Your task to perform on an android device: Show the shopping cart on costco.com. Search for razer naga on costco.com, select the first entry, add it to the cart, then select checkout. Image 0: 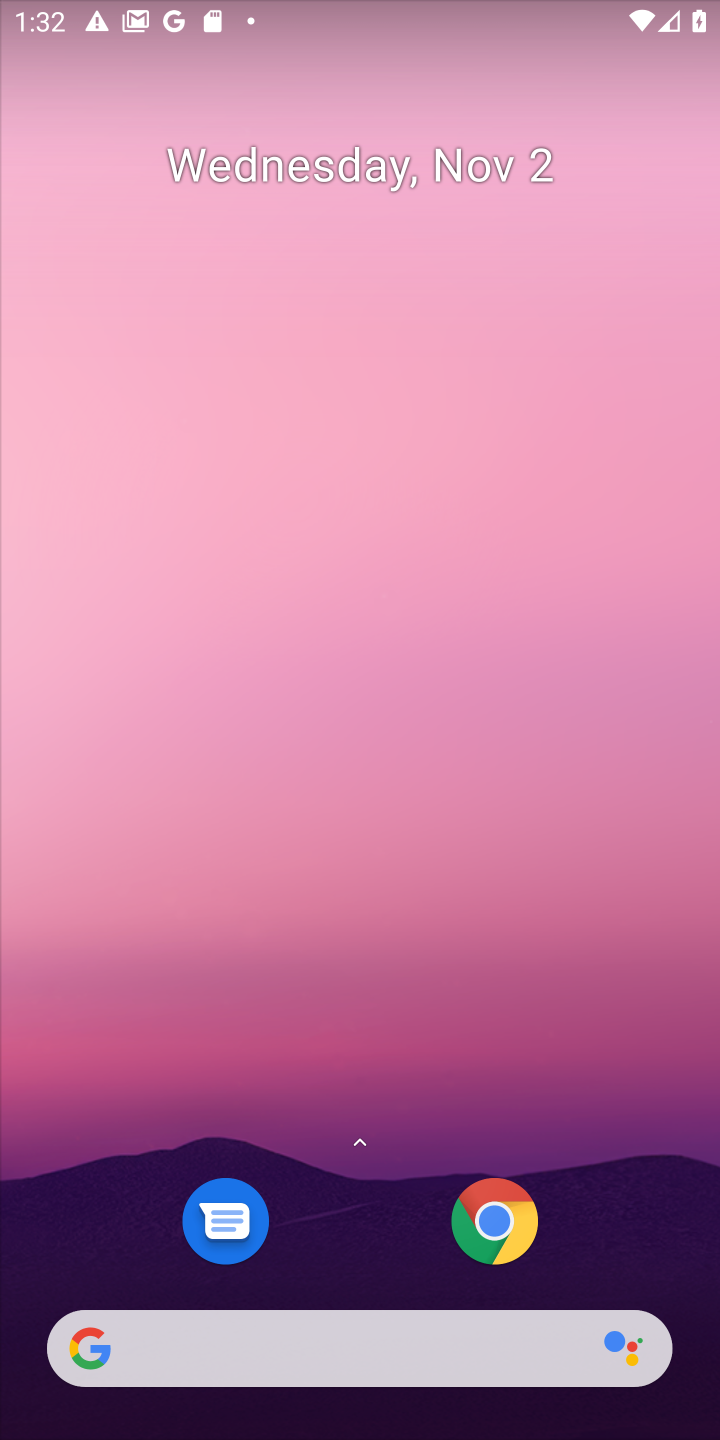
Step 0: task complete